Your task to perform on an android device: find snoozed emails in the gmail app Image 0: 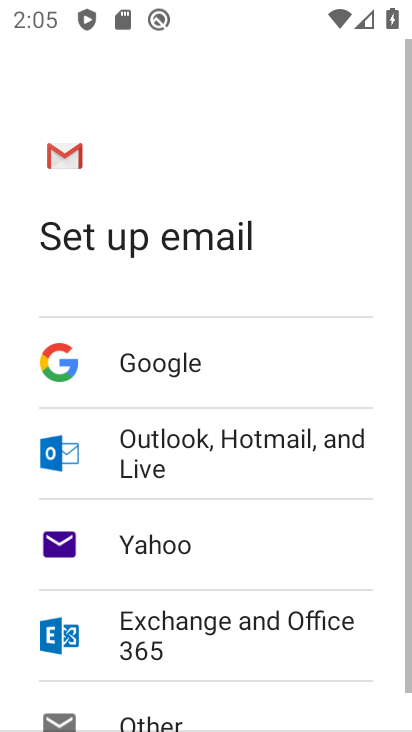
Step 0: press home button
Your task to perform on an android device: find snoozed emails in the gmail app Image 1: 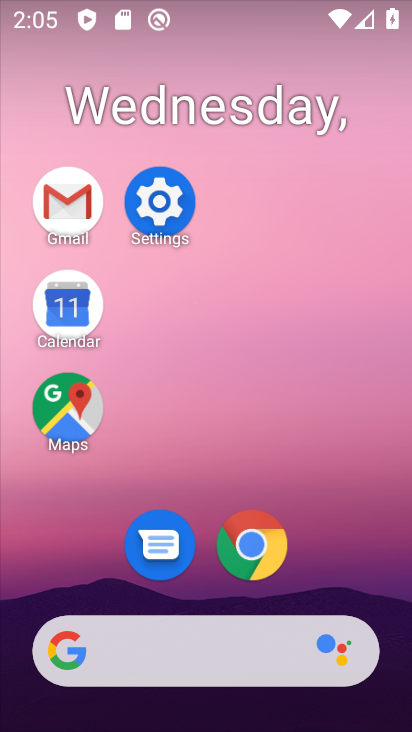
Step 1: click (83, 187)
Your task to perform on an android device: find snoozed emails in the gmail app Image 2: 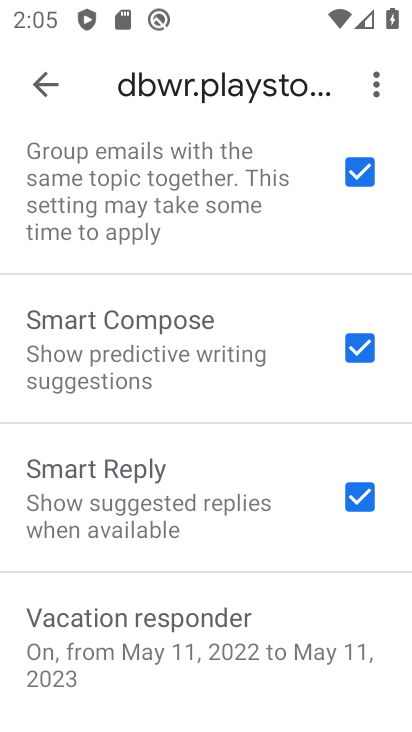
Step 2: click (50, 94)
Your task to perform on an android device: find snoozed emails in the gmail app Image 3: 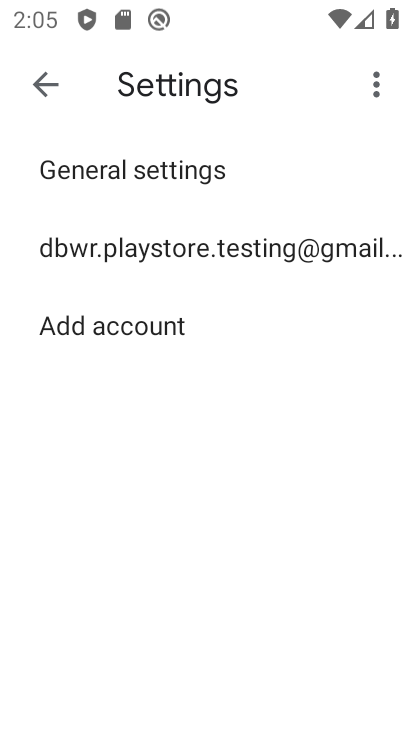
Step 3: click (50, 94)
Your task to perform on an android device: find snoozed emails in the gmail app Image 4: 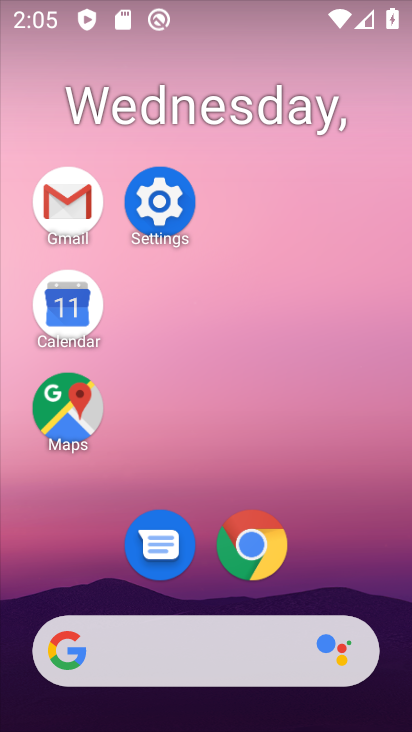
Step 4: click (71, 201)
Your task to perform on an android device: find snoozed emails in the gmail app Image 5: 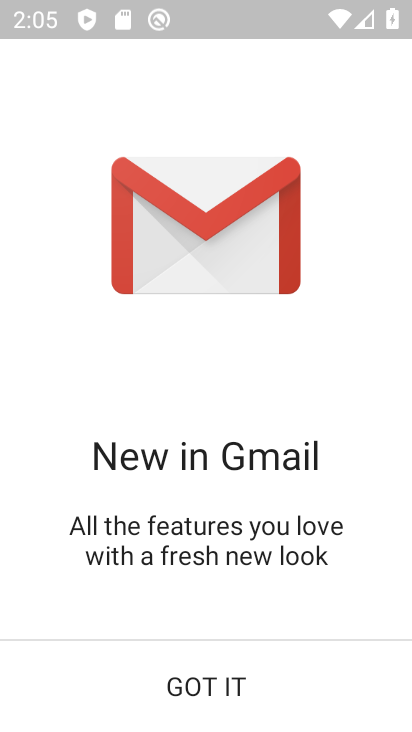
Step 5: click (187, 683)
Your task to perform on an android device: find snoozed emails in the gmail app Image 6: 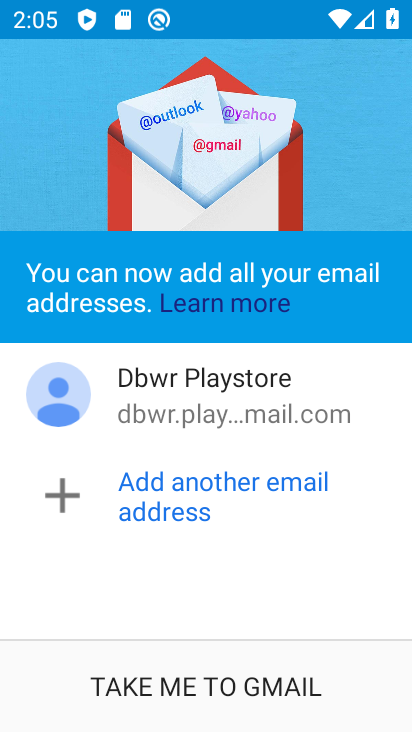
Step 6: click (187, 683)
Your task to perform on an android device: find snoozed emails in the gmail app Image 7: 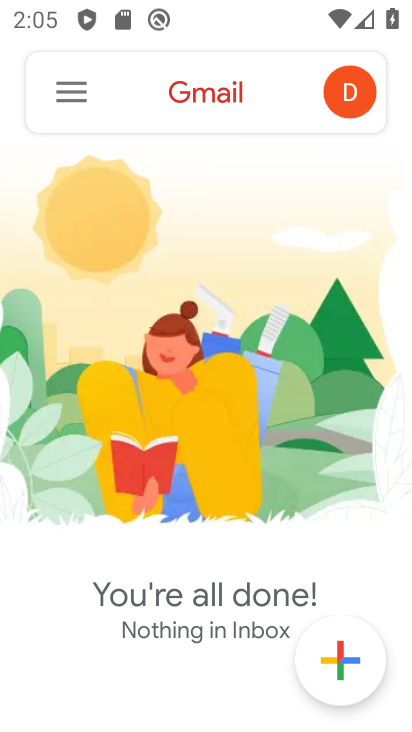
Step 7: click (85, 85)
Your task to perform on an android device: find snoozed emails in the gmail app Image 8: 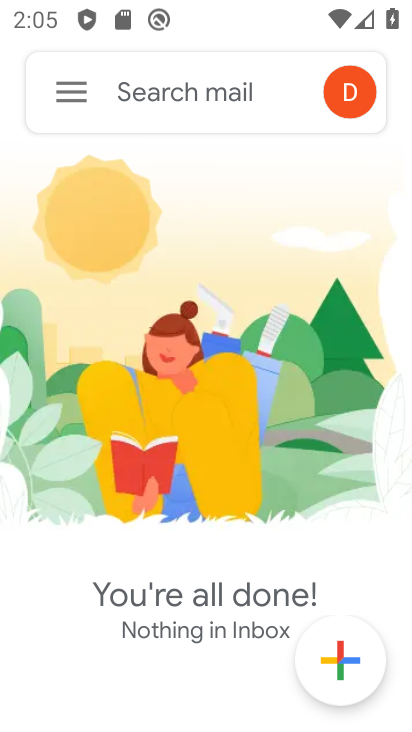
Step 8: click (68, 94)
Your task to perform on an android device: find snoozed emails in the gmail app Image 9: 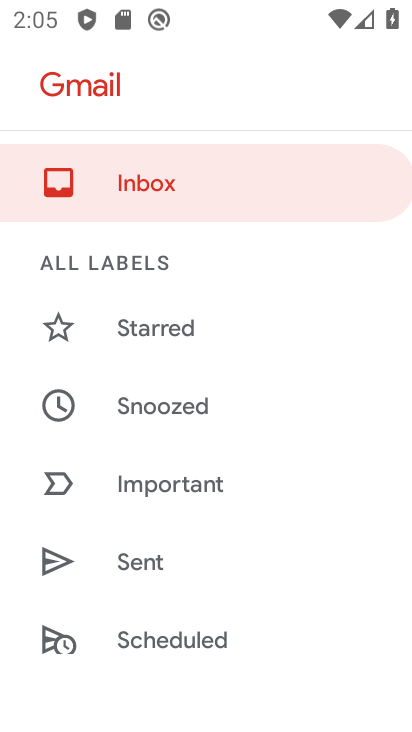
Step 9: click (169, 416)
Your task to perform on an android device: find snoozed emails in the gmail app Image 10: 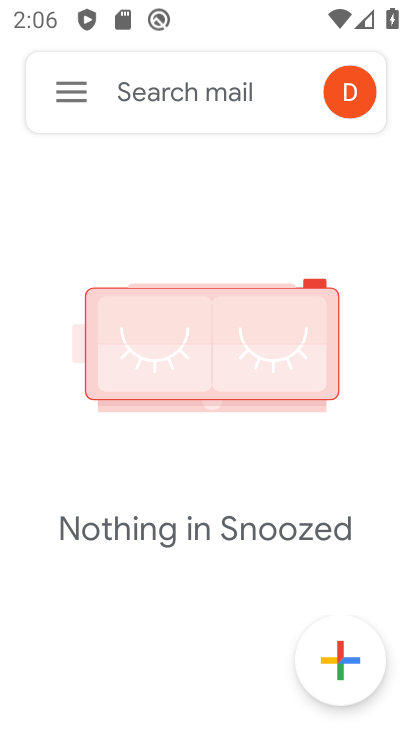
Step 10: task complete